Your task to perform on an android device: open a bookmark in the chrome app Image 0: 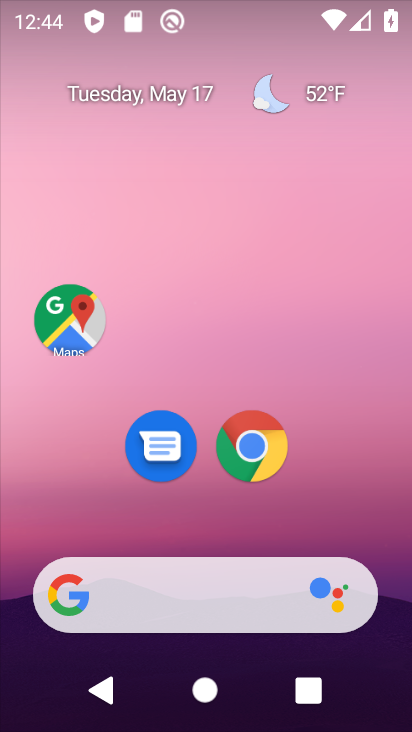
Step 0: click (254, 458)
Your task to perform on an android device: open a bookmark in the chrome app Image 1: 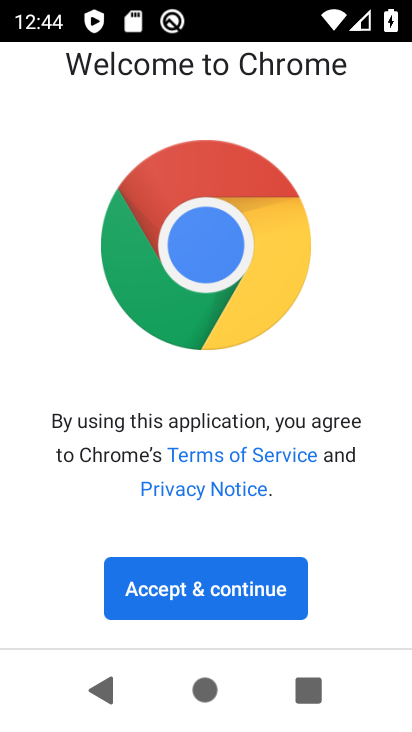
Step 1: click (250, 587)
Your task to perform on an android device: open a bookmark in the chrome app Image 2: 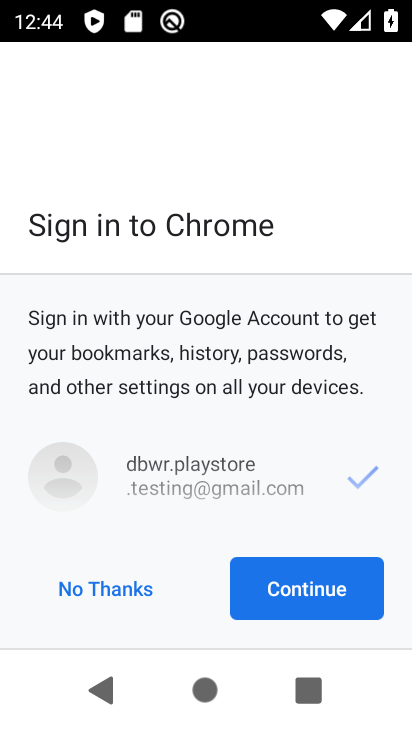
Step 2: click (280, 587)
Your task to perform on an android device: open a bookmark in the chrome app Image 3: 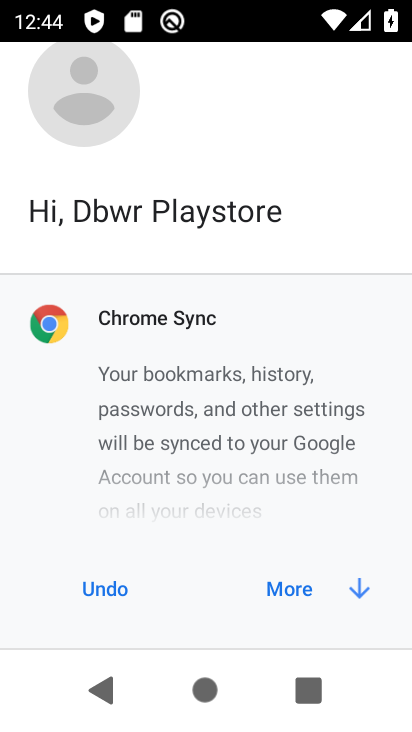
Step 3: click (280, 587)
Your task to perform on an android device: open a bookmark in the chrome app Image 4: 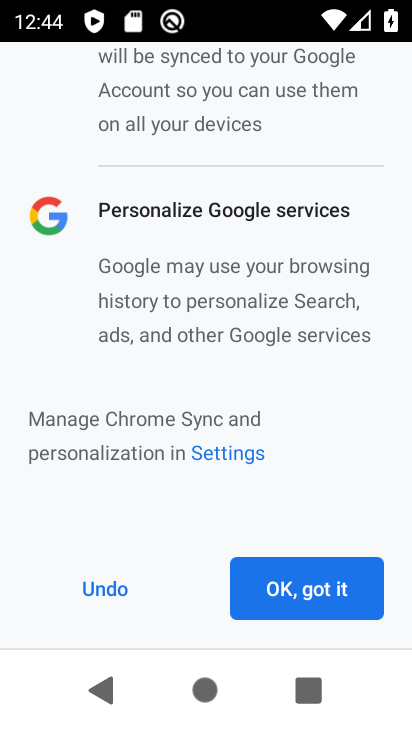
Step 4: click (280, 587)
Your task to perform on an android device: open a bookmark in the chrome app Image 5: 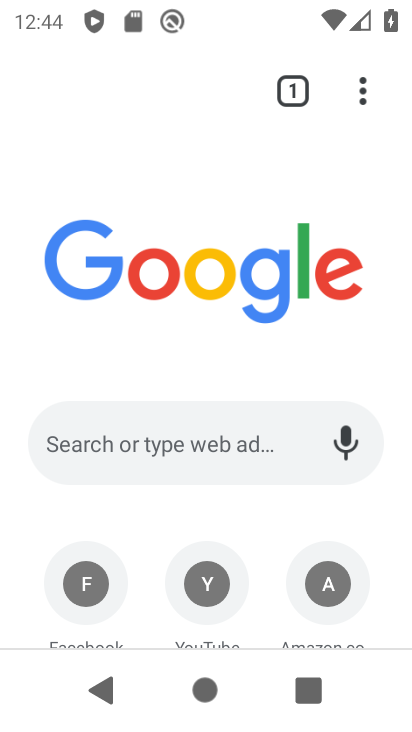
Step 5: click (376, 71)
Your task to perform on an android device: open a bookmark in the chrome app Image 6: 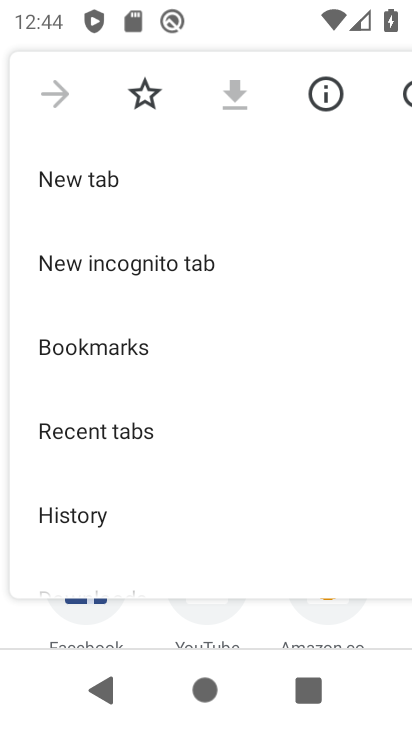
Step 6: click (122, 358)
Your task to perform on an android device: open a bookmark in the chrome app Image 7: 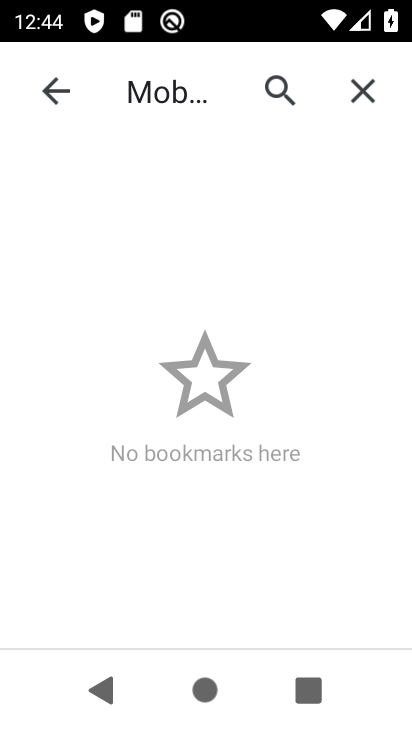
Step 7: task complete